Your task to perform on an android device: Open the web browser Image 0: 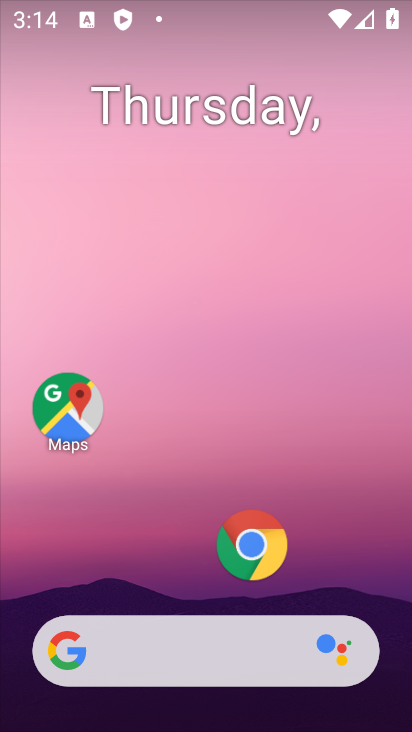
Step 0: drag from (202, 648) to (298, 38)
Your task to perform on an android device: Open the web browser Image 1: 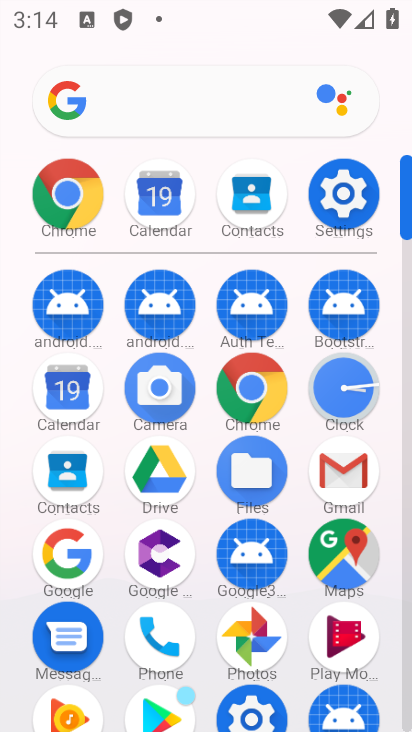
Step 1: click (238, 391)
Your task to perform on an android device: Open the web browser Image 2: 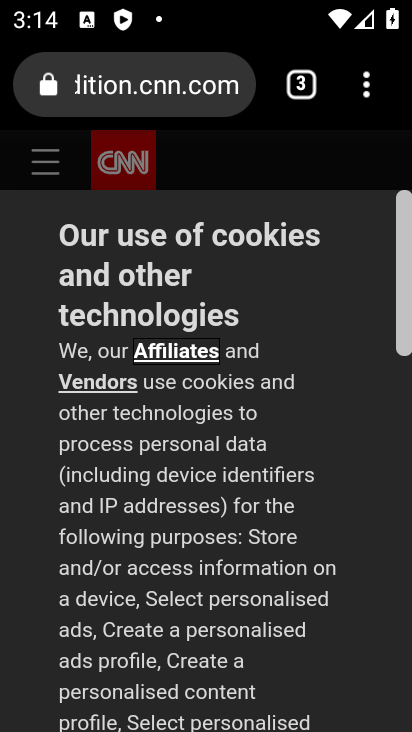
Step 2: task complete